Your task to perform on an android device: open app "Expedia: Hotels, Flights & Car" (install if not already installed) and go to login screen Image 0: 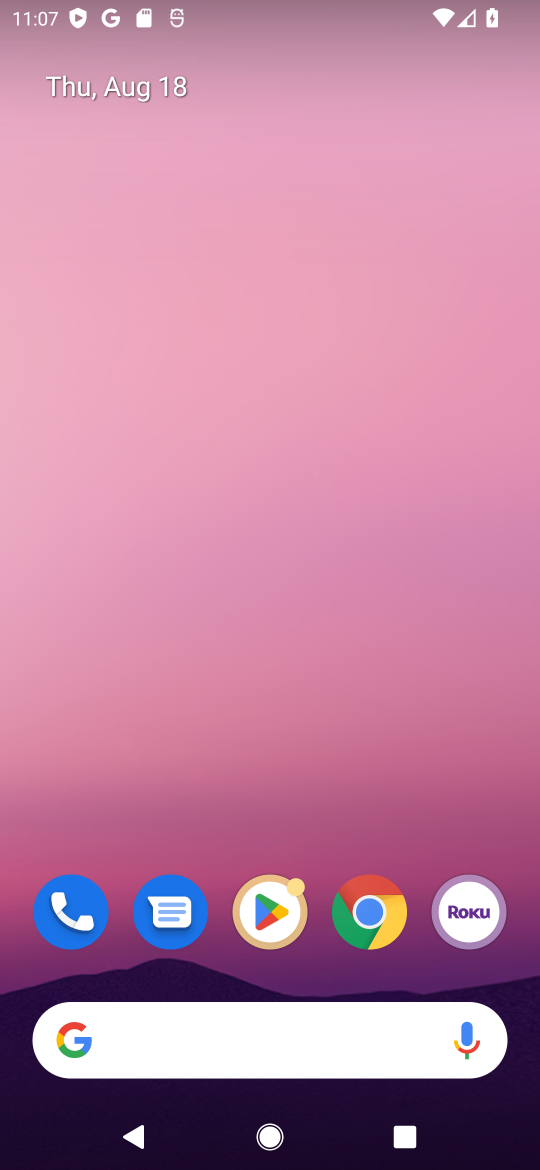
Step 0: click (281, 911)
Your task to perform on an android device: open app "Expedia: Hotels, Flights & Car" (install if not already installed) and go to login screen Image 1: 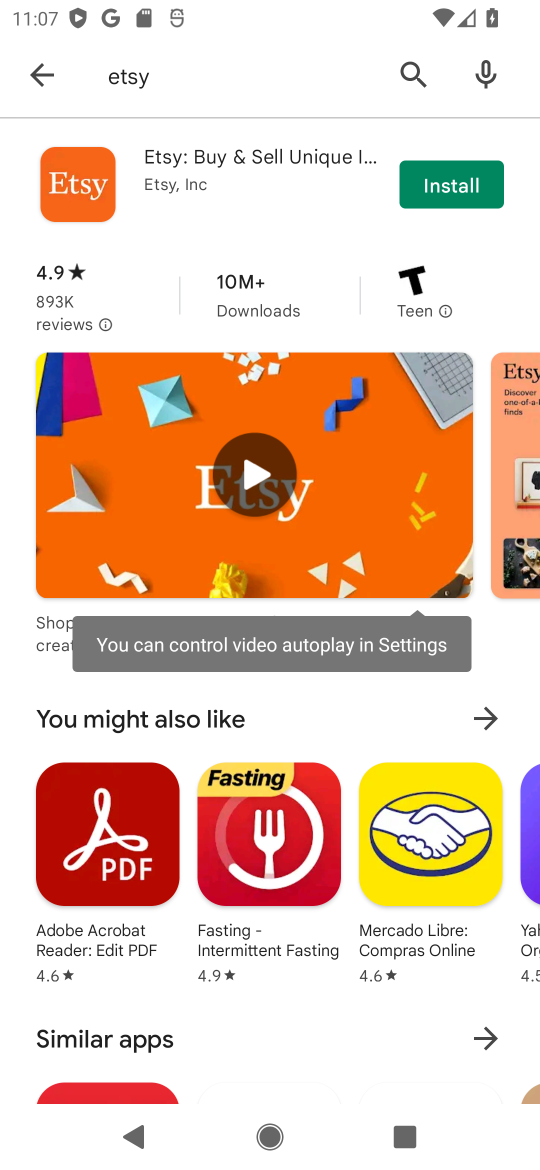
Step 1: click (411, 71)
Your task to perform on an android device: open app "Expedia: Hotels, Flights & Car" (install if not already installed) and go to login screen Image 2: 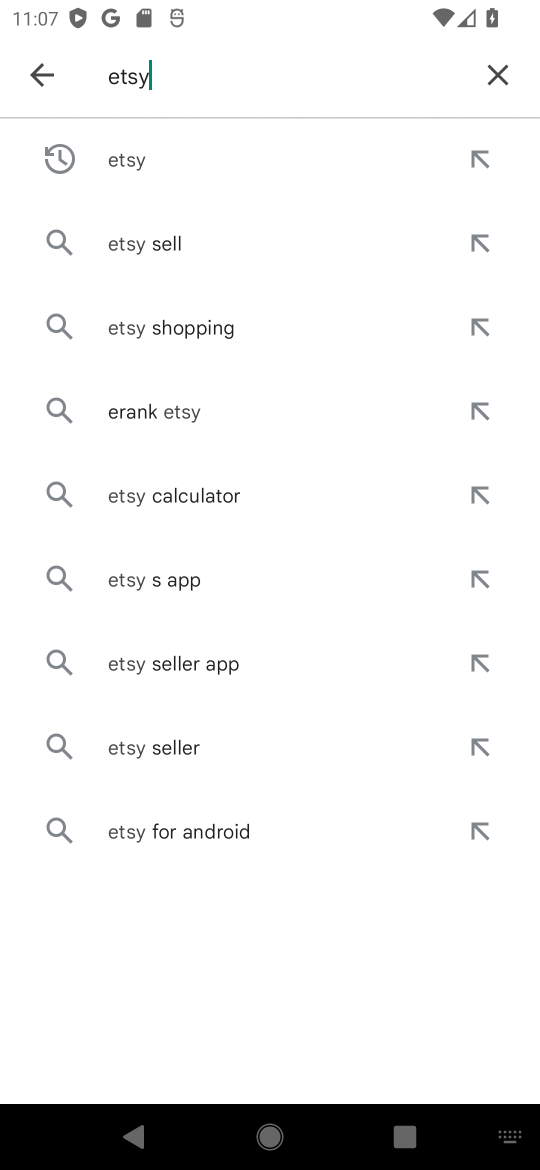
Step 2: click (491, 84)
Your task to perform on an android device: open app "Expedia: Hotels, Flights & Car" (install if not already installed) and go to login screen Image 3: 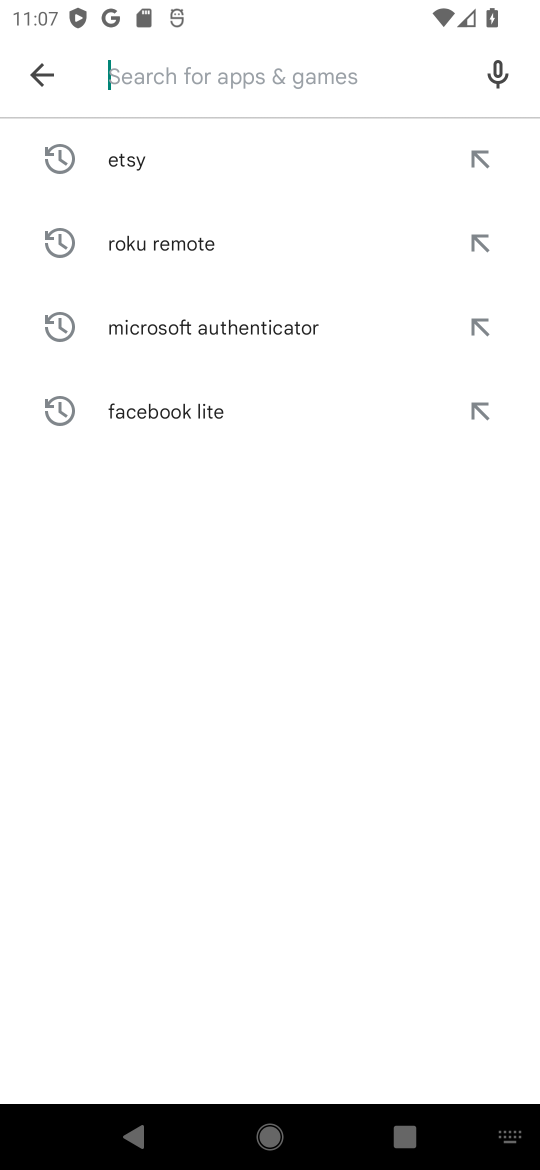
Step 3: click (180, 65)
Your task to perform on an android device: open app "Expedia: Hotels, Flights & Car" (install if not already installed) and go to login screen Image 4: 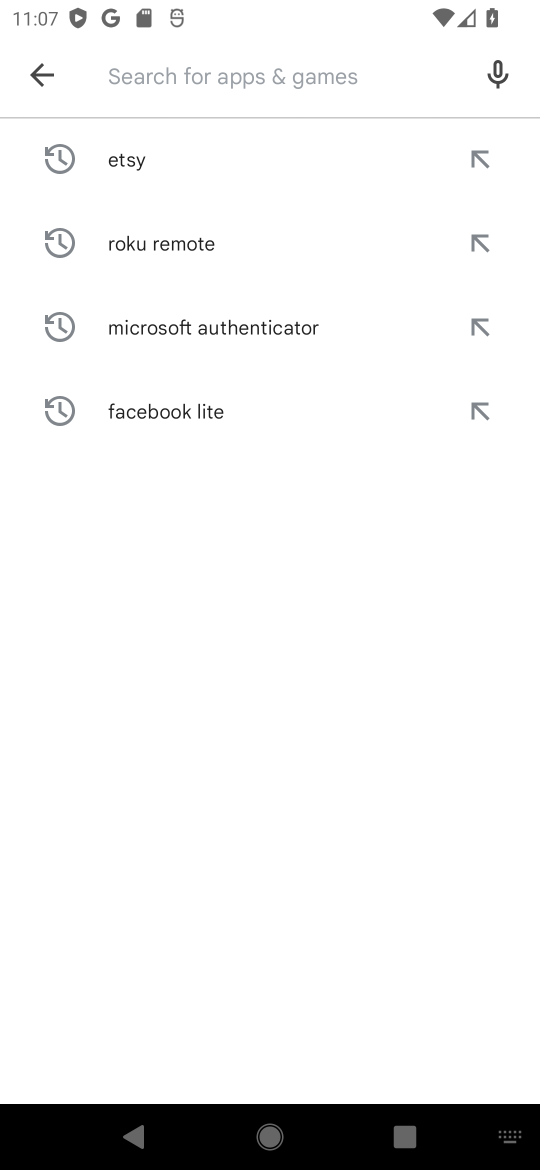
Step 4: type "Expedia"
Your task to perform on an android device: open app "Expedia: Hotels, Flights & Car" (install if not already installed) and go to login screen Image 5: 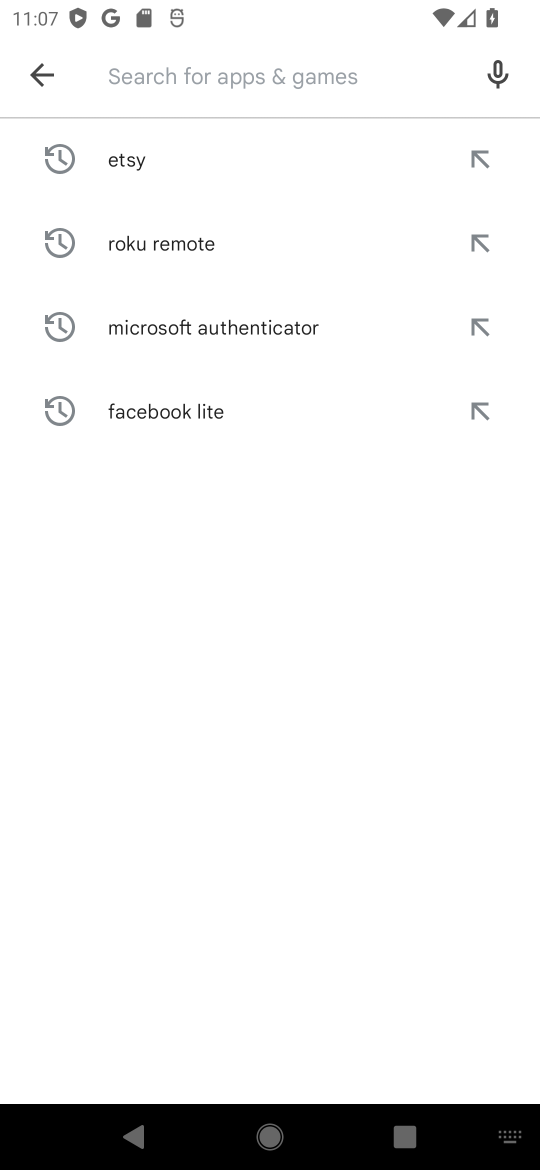
Step 5: click (256, 609)
Your task to perform on an android device: open app "Expedia: Hotels, Flights & Car" (install if not already installed) and go to login screen Image 6: 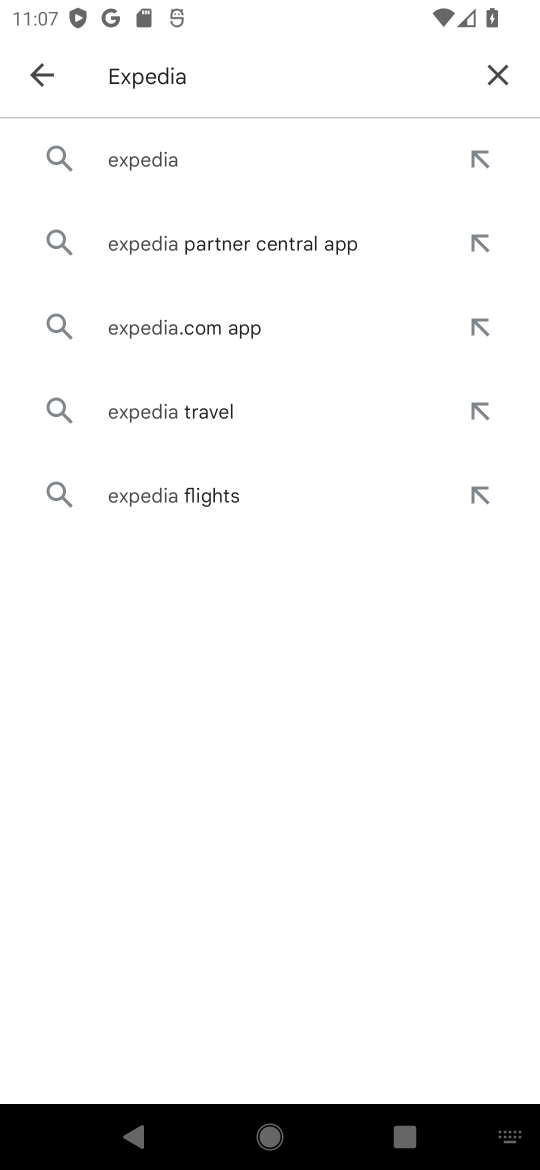
Step 6: click (207, 155)
Your task to perform on an android device: open app "Expedia: Hotels, Flights & Car" (install if not already installed) and go to login screen Image 7: 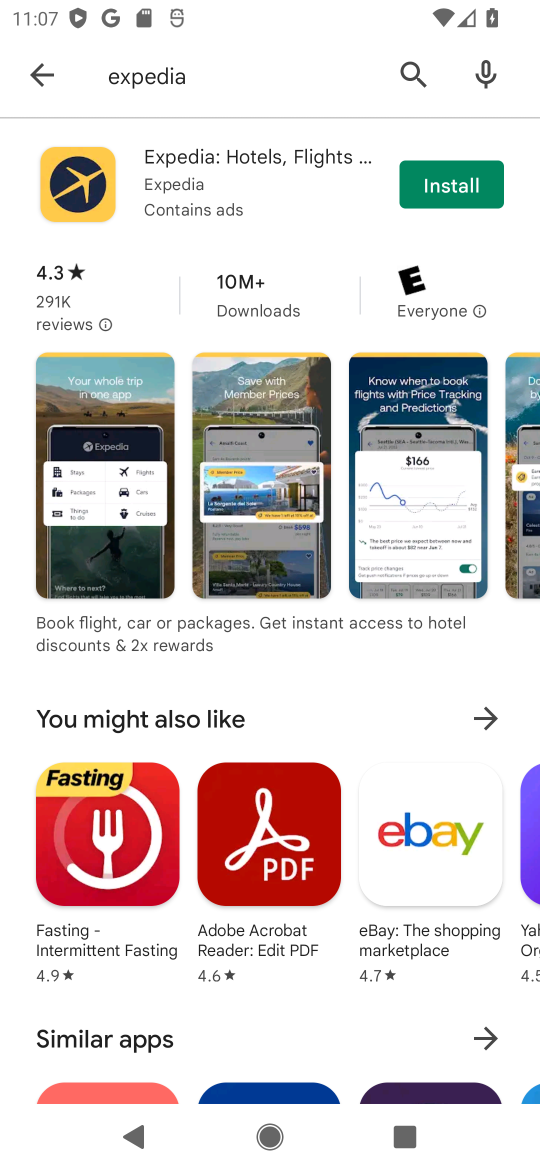
Step 7: click (470, 180)
Your task to perform on an android device: open app "Expedia: Hotels, Flights & Car" (install if not already installed) and go to login screen Image 8: 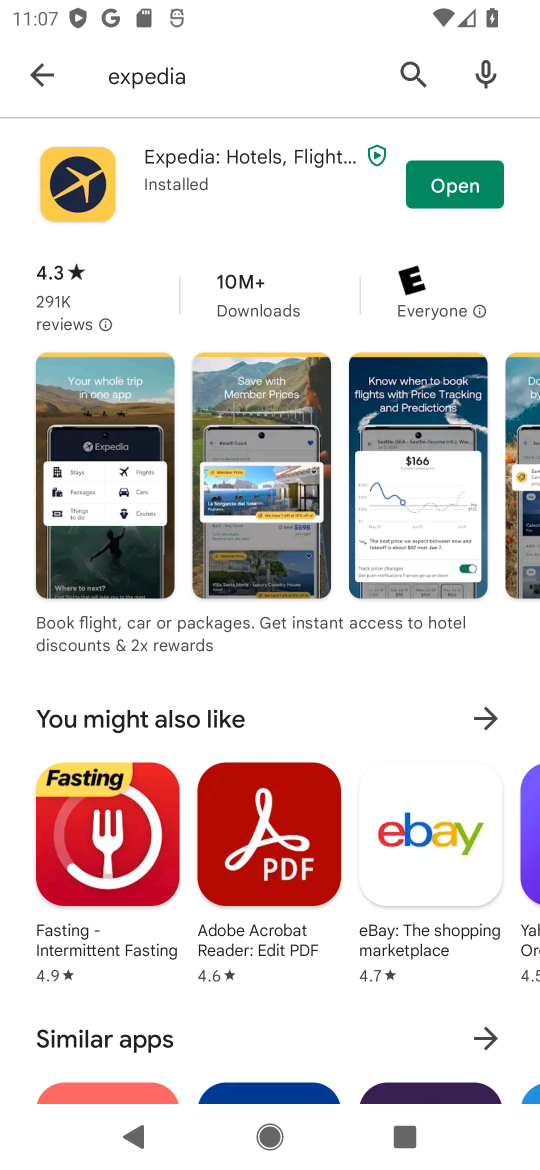
Step 8: click (470, 180)
Your task to perform on an android device: open app "Expedia: Hotels, Flights & Car" (install if not already installed) and go to login screen Image 9: 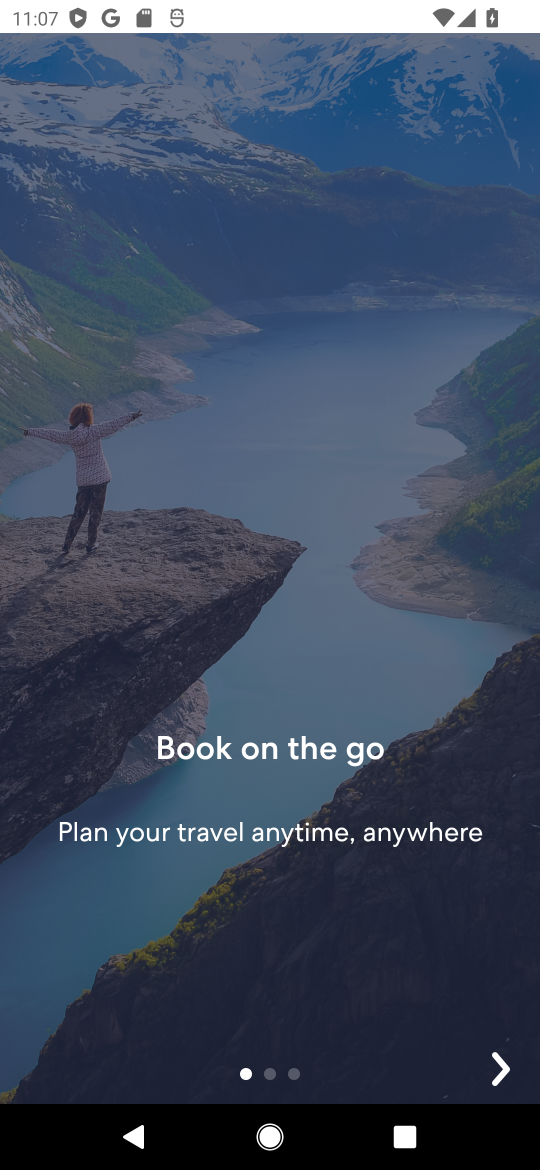
Step 9: click (519, 1063)
Your task to perform on an android device: open app "Expedia: Hotels, Flights & Car" (install if not already installed) and go to login screen Image 10: 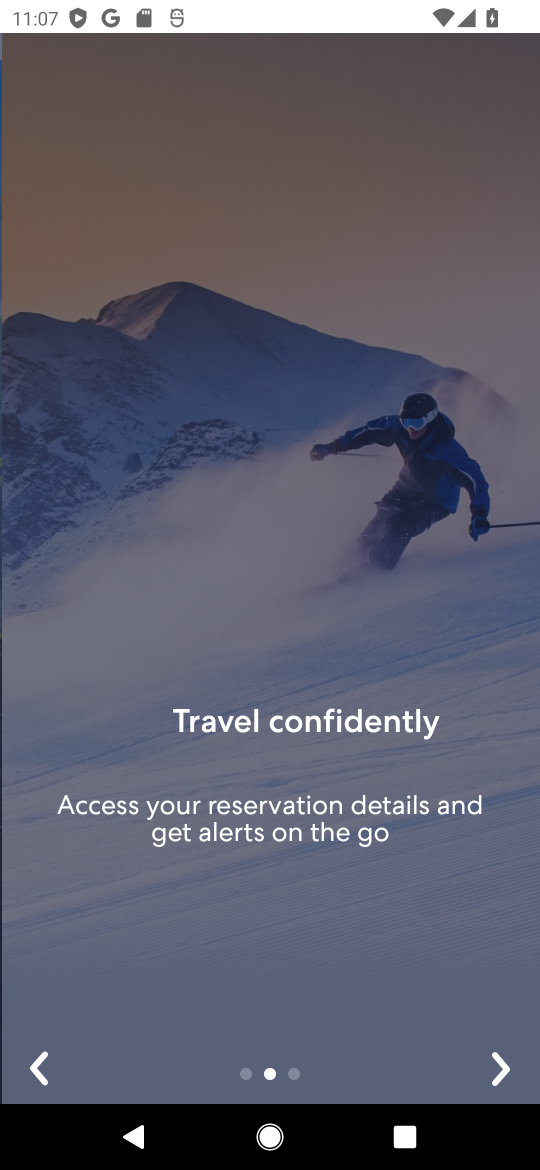
Step 10: click (498, 1089)
Your task to perform on an android device: open app "Expedia: Hotels, Flights & Car" (install if not already installed) and go to login screen Image 11: 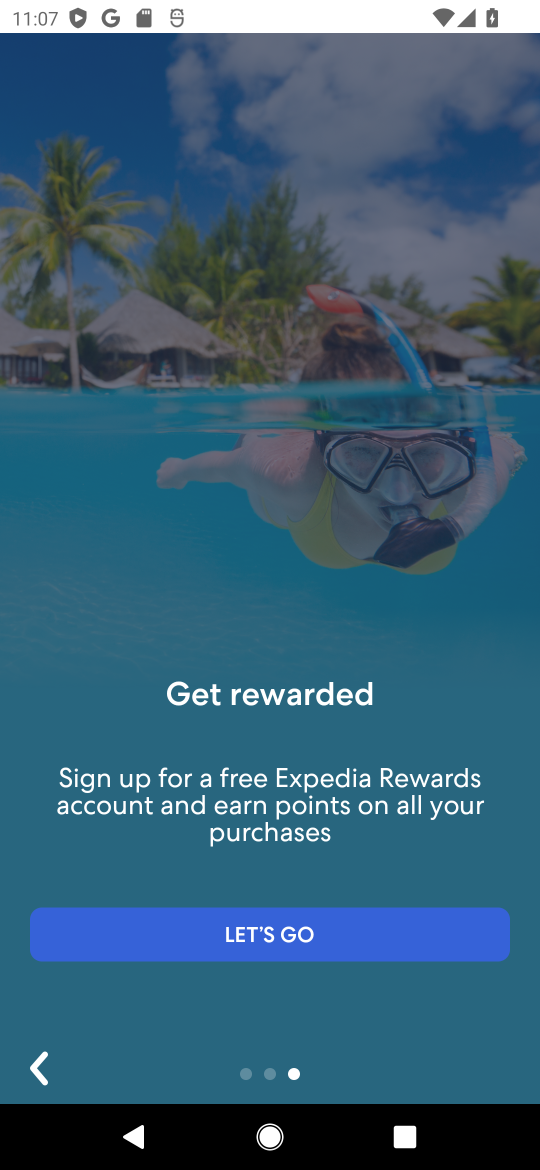
Step 11: click (321, 935)
Your task to perform on an android device: open app "Expedia: Hotels, Flights & Car" (install if not already installed) and go to login screen Image 12: 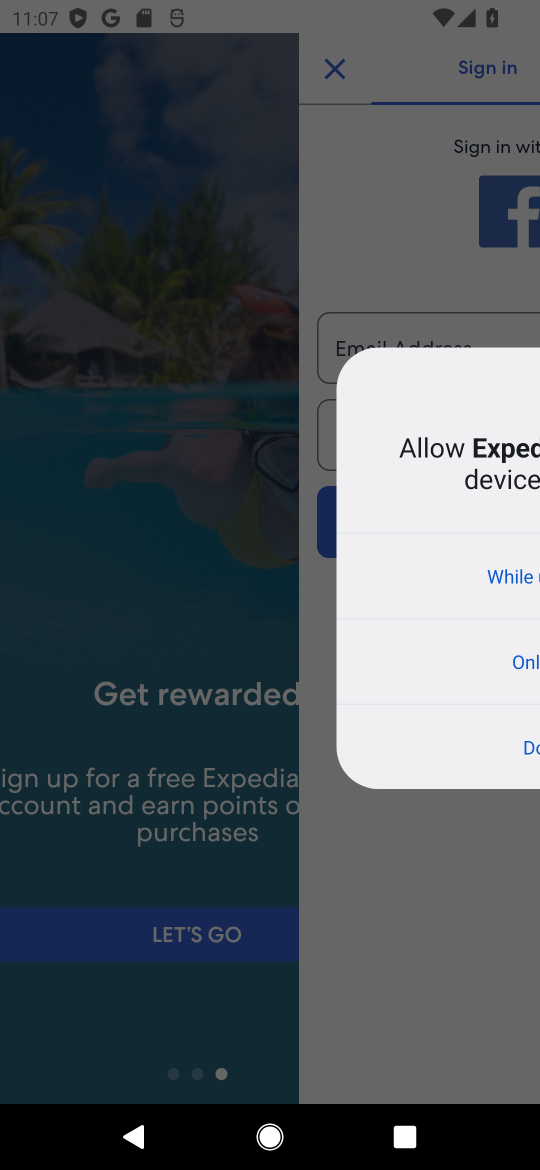
Step 12: click (323, 934)
Your task to perform on an android device: open app "Expedia: Hotels, Flights & Car" (install if not already installed) and go to login screen Image 13: 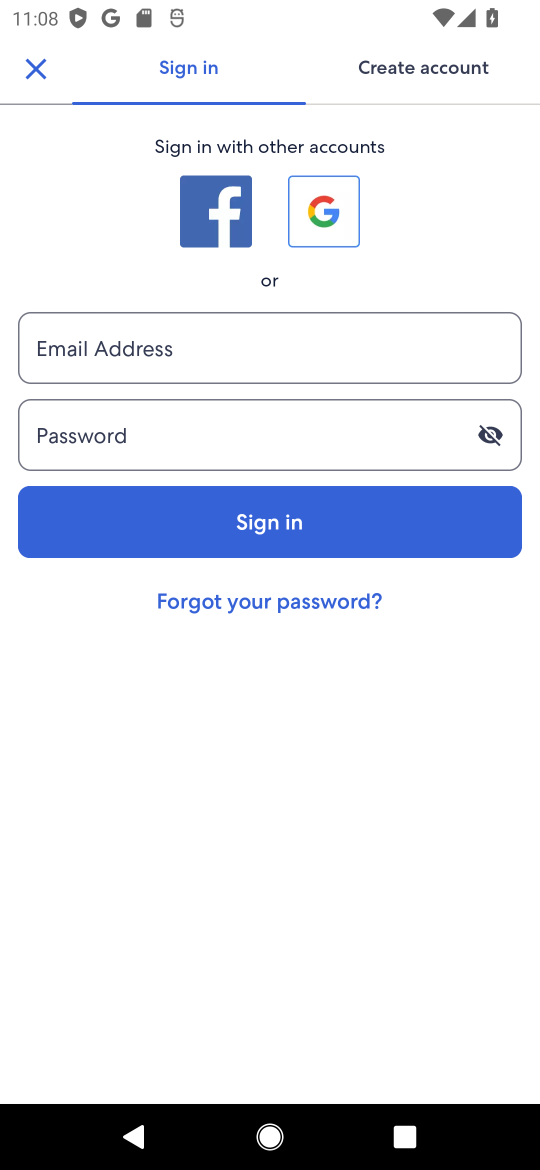
Step 13: task complete